Your task to perform on an android device: turn on priority inbox in the gmail app Image 0: 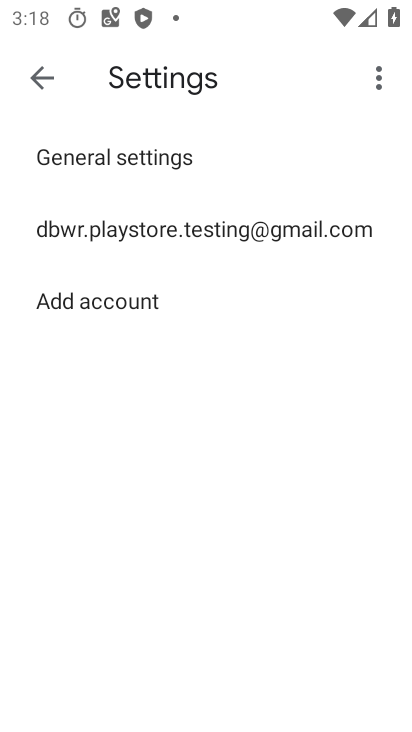
Step 0: click (198, 232)
Your task to perform on an android device: turn on priority inbox in the gmail app Image 1: 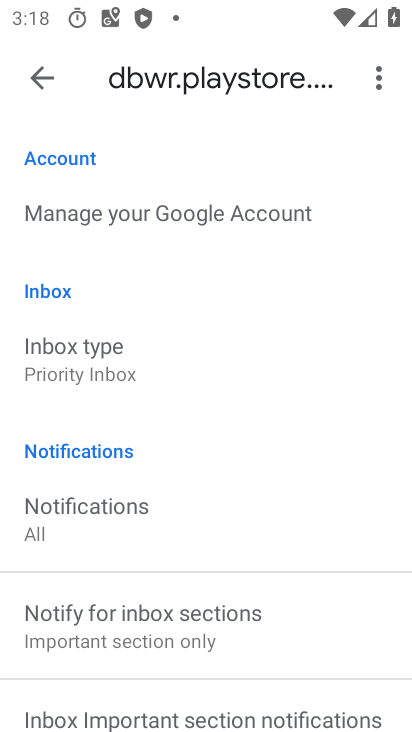
Step 1: click (155, 360)
Your task to perform on an android device: turn on priority inbox in the gmail app Image 2: 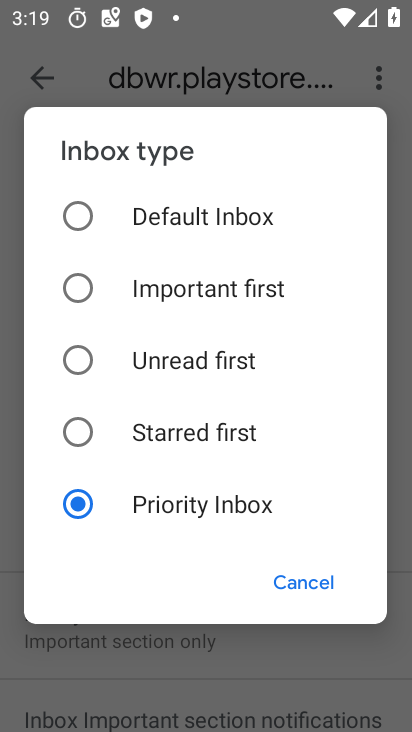
Step 2: task complete